Your task to perform on an android device: Open Google Maps Image 0: 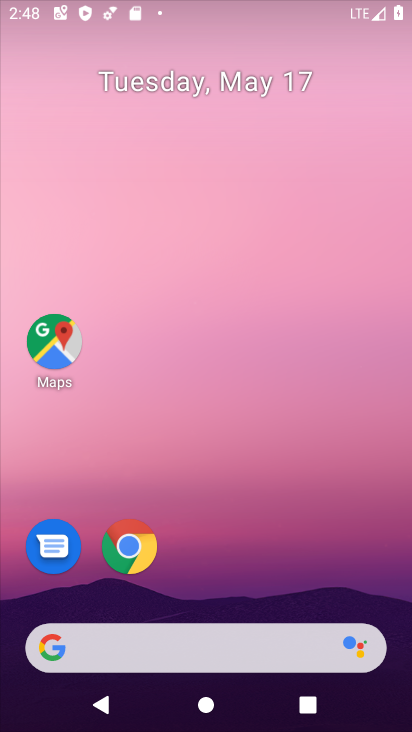
Step 0: press home button
Your task to perform on an android device: Open Google Maps Image 1: 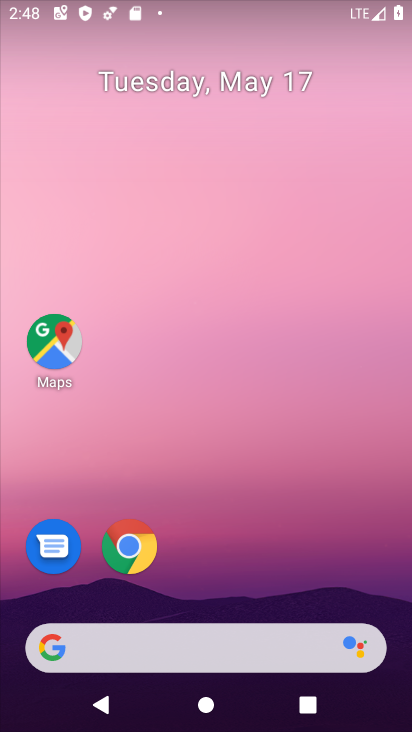
Step 1: click (52, 325)
Your task to perform on an android device: Open Google Maps Image 2: 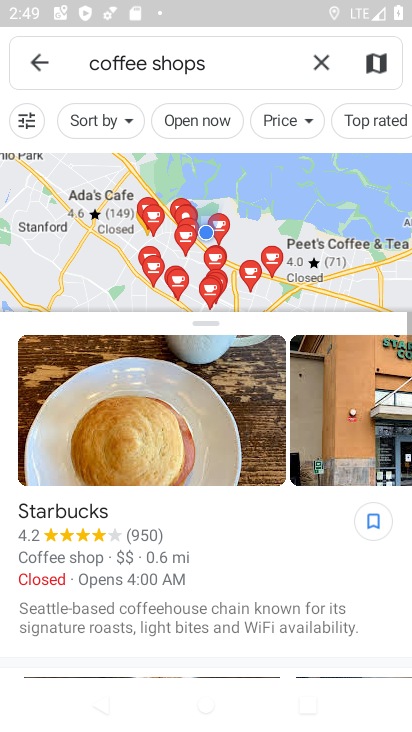
Step 2: task complete